Your task to perform on an android device: add a contact Image 0: 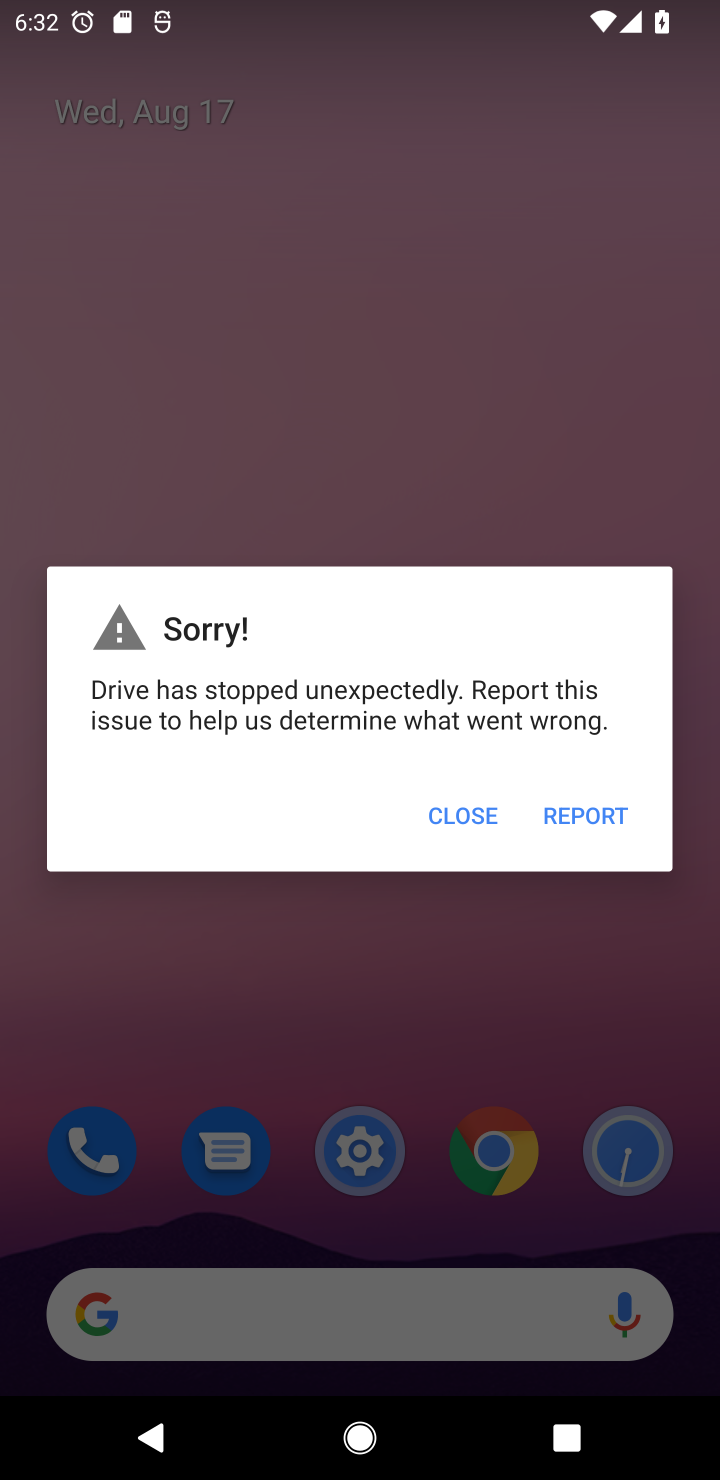
Step 0: press home button
Your task to perform on an android device: add a contact Image 1: 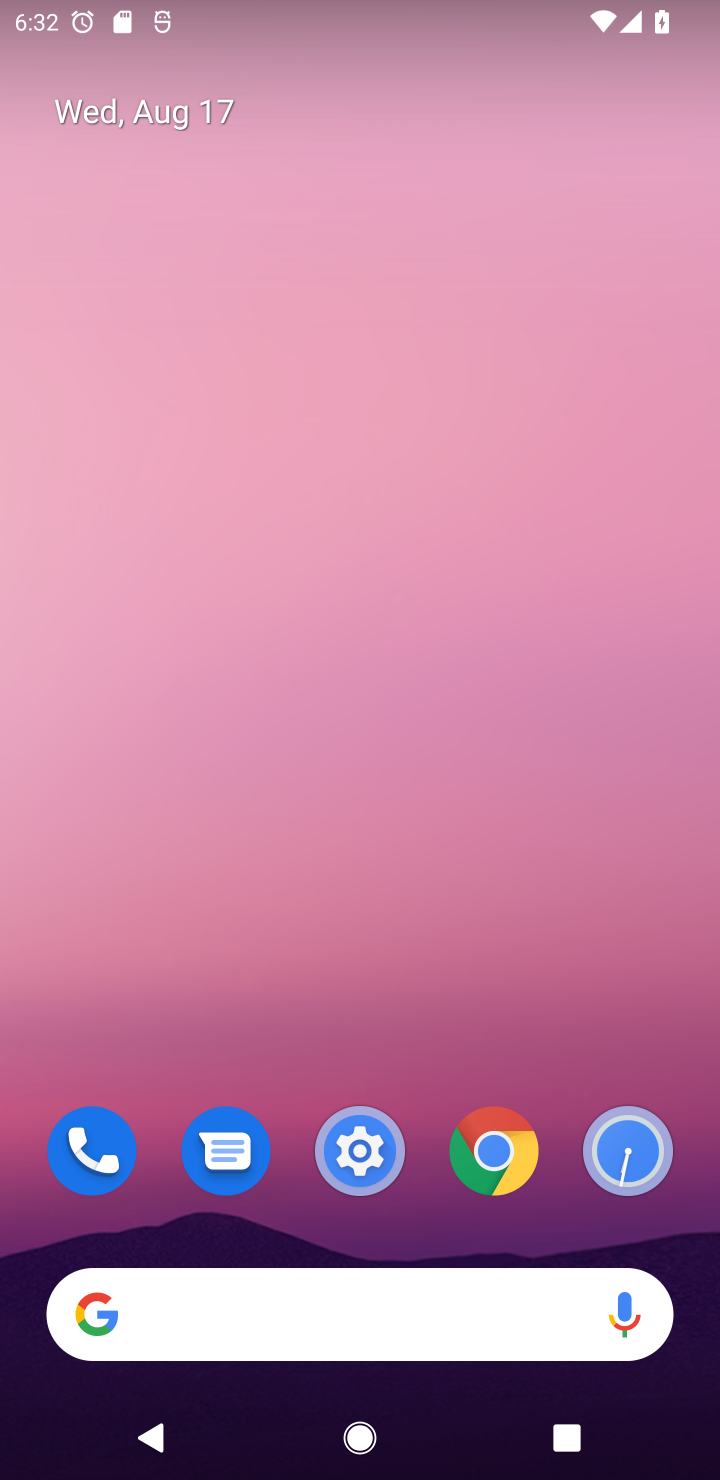
Step 1: drag from (449, 1256) to (439, 18)
Your task to perform on an android device: add a contact Image 2: 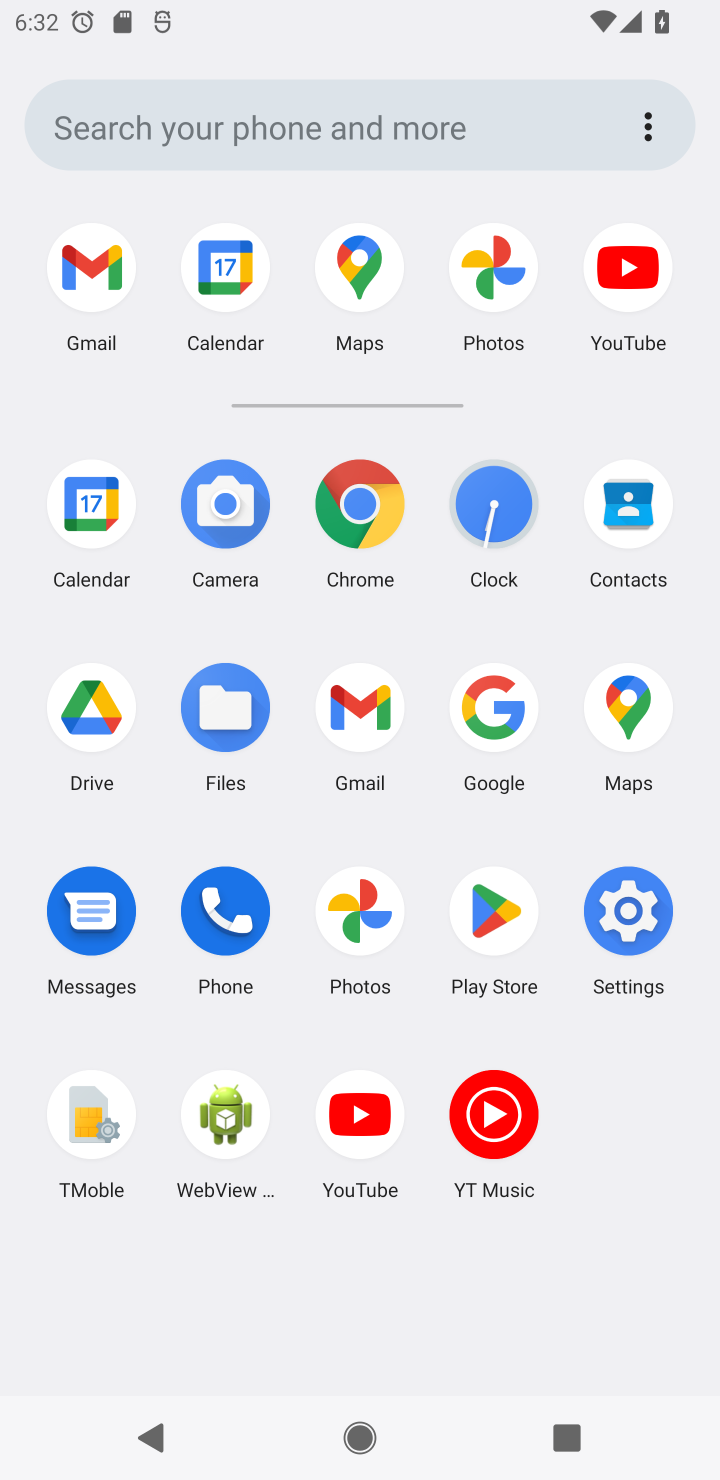
Step 2: click (635, 505)
Your task to perform on an android device: add a contact Image 3: 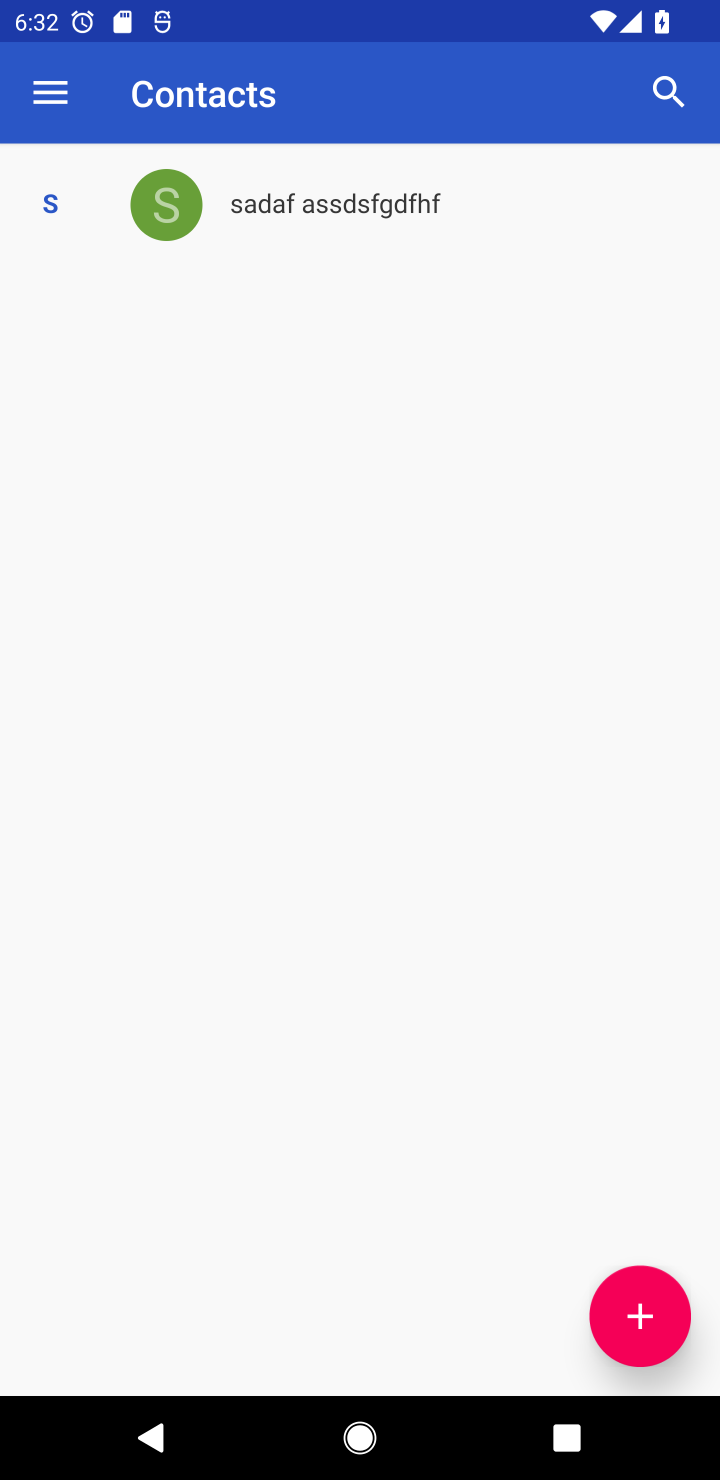
Step 3: task complete